Your task to perform on an android device: check android version Image 0: 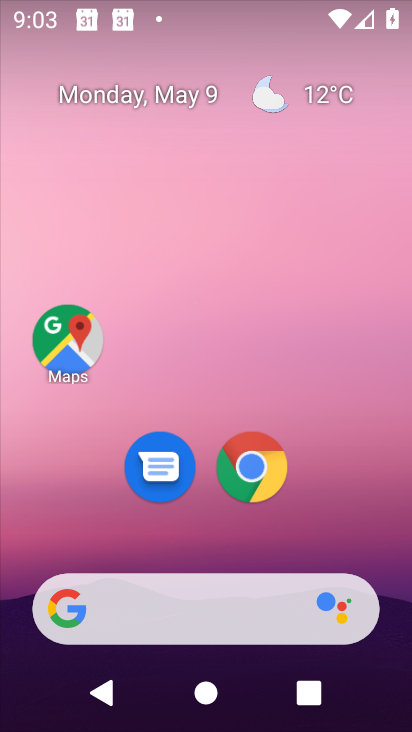
Step 0: drag from (357, 499) to (352, 7)
Your task to perform on an android device: check android version Image 1: 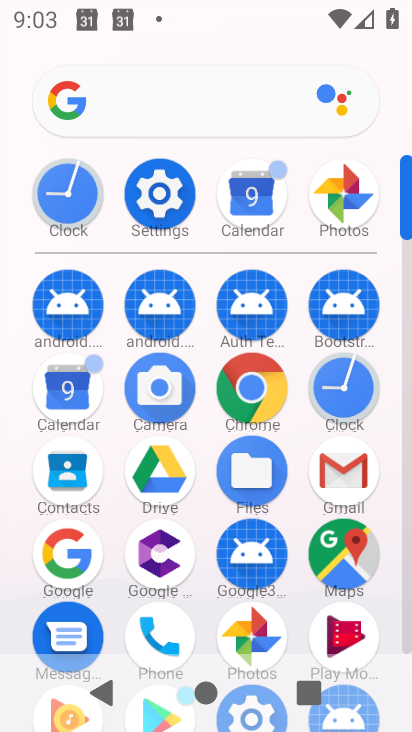
Step 1: click (161, 202)
Your task to perform on an android device: check android version Image 2: 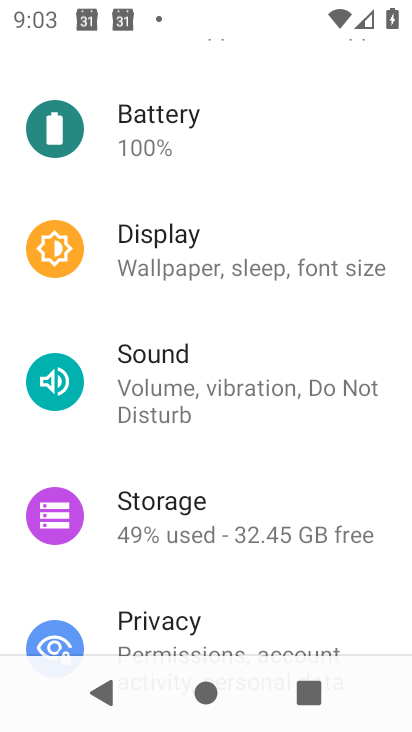
Step 2: drag from (279, 532) to (243, 82)
Your task to perform on an android device: check android version Image 3: 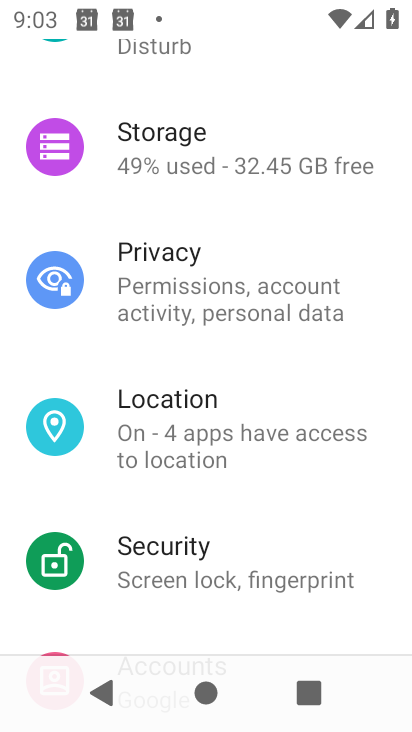
Step 3: drag from (220, 520) to (204, 98)
Your task to perform on an android device: check android version Image 4: 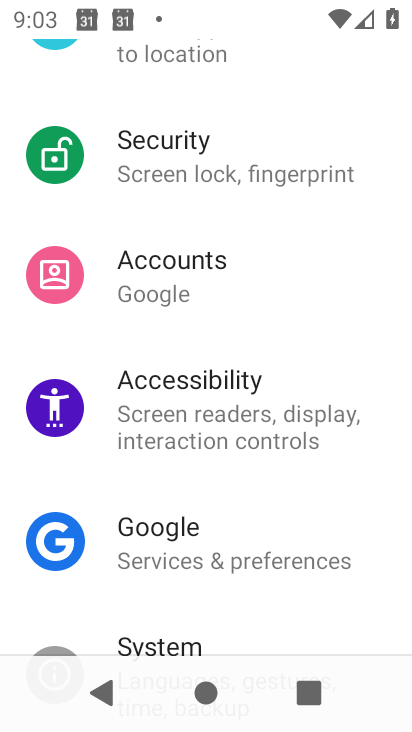
Step 4: drag from (227, 532) to (226, 74)
Your task to perform on an android device: check android version Image 5: 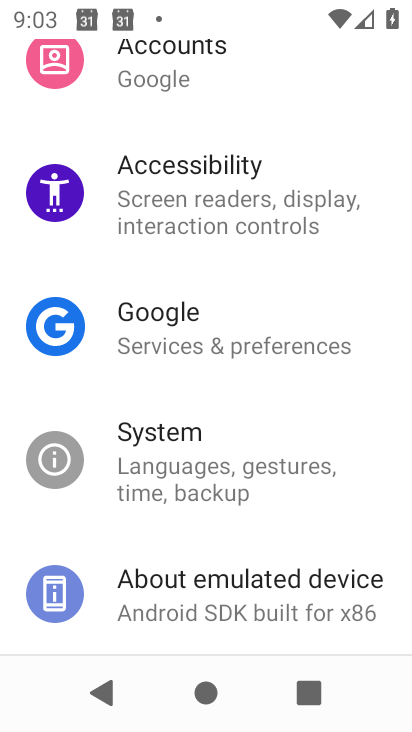
Step 5: click (231, 581)
Your task to perform on an android device: check android version Image 6: 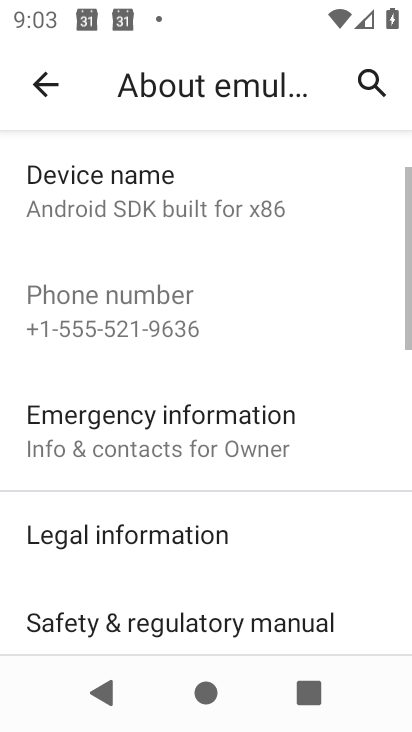
Step 6: drag from (262, 586) to (248, 145)
Your task to perform on an android device: check android version Image 7: 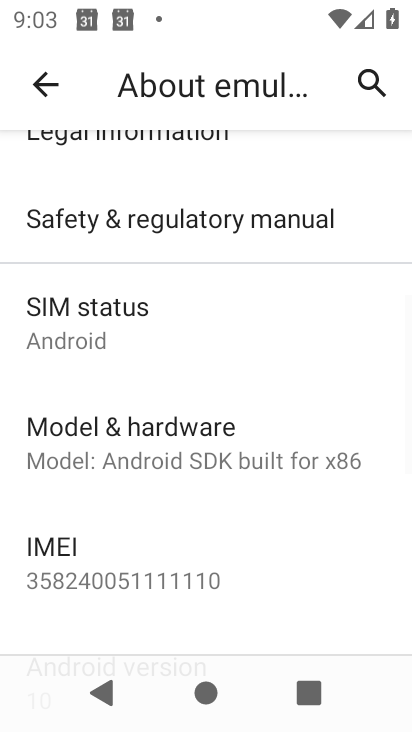
Step 7: drag from (229, 599) to (229, 135)
Your task to perform on an android device: check android version Image 8: 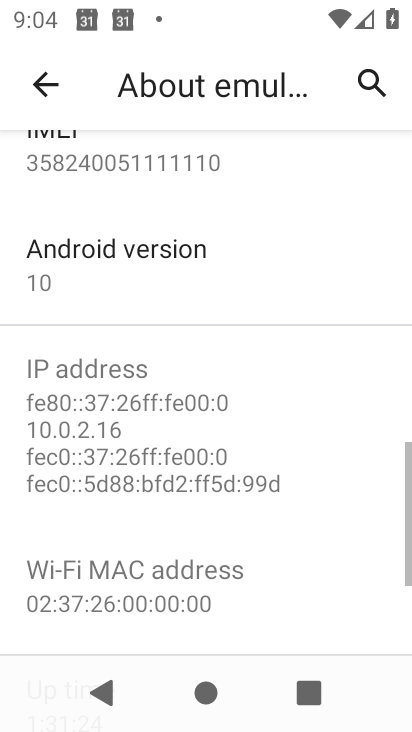
Step 8: drag from (198, 558) to (194, 316)
Your task to perform on an android device: check android version Image 9: 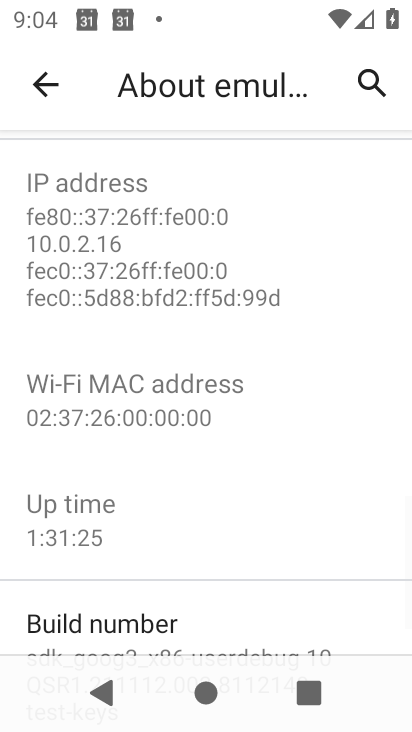
Step 9: drag from (178, 296) to (222, 549)
Your task to perform on an android device: check android version Image 10: 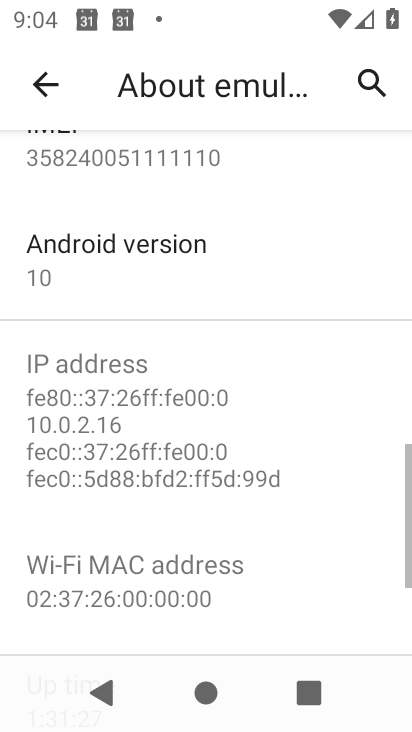
Step 10: click (88, 267)
Your task to perform on an android device: check android version Image 11: 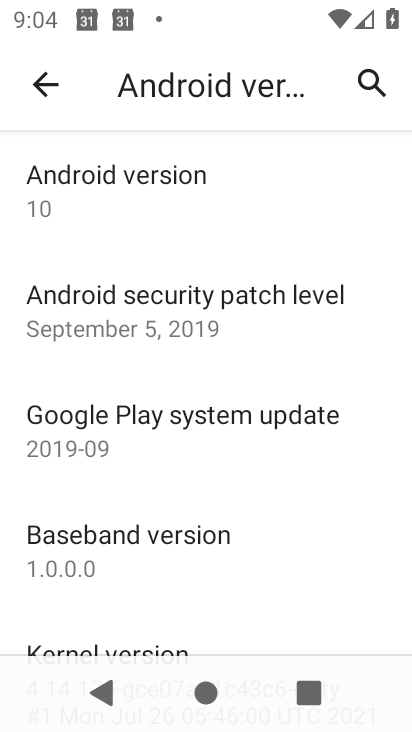
Step 11: task complete